Your task to perform on an android device: Open calendar and show me the first week of next month Image 0: 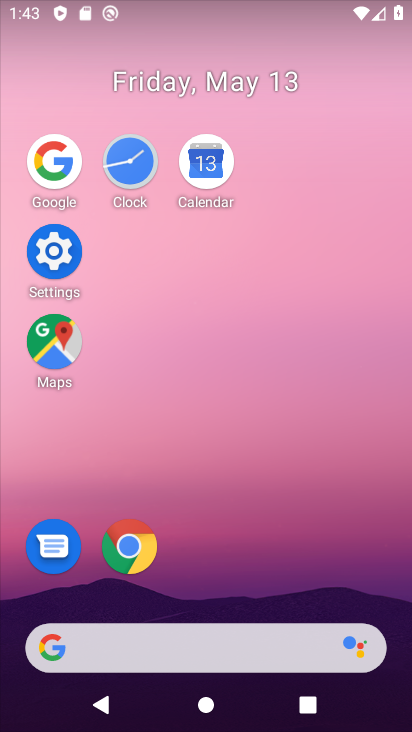
Step 0: click (210, 154)
Your task to perform on an android device: Open calendar and show me the first week of next month Image 1: 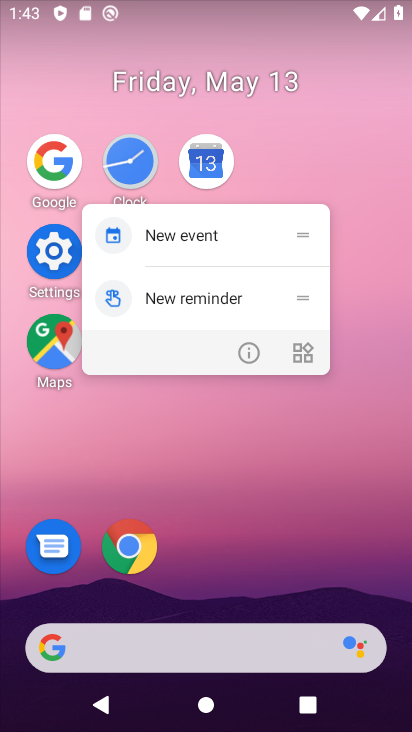
Step 1: click (216, 172)
Your task to perform on an android device: Open calendar and show me the first week of next month Image 2: 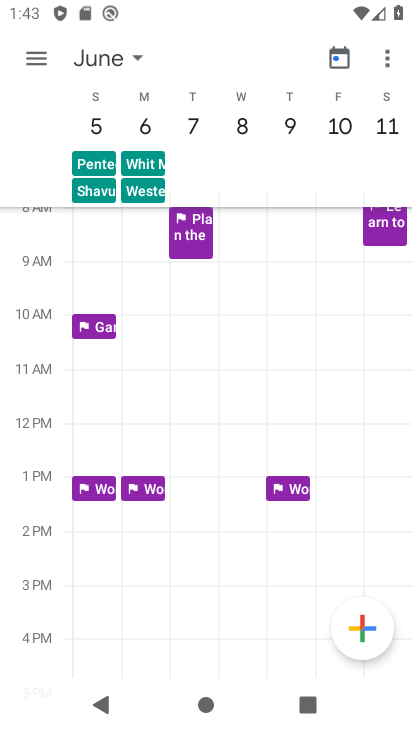
Step 2: task complete